Your task to perform on an android device: add a contact in the contacts app Image 0: 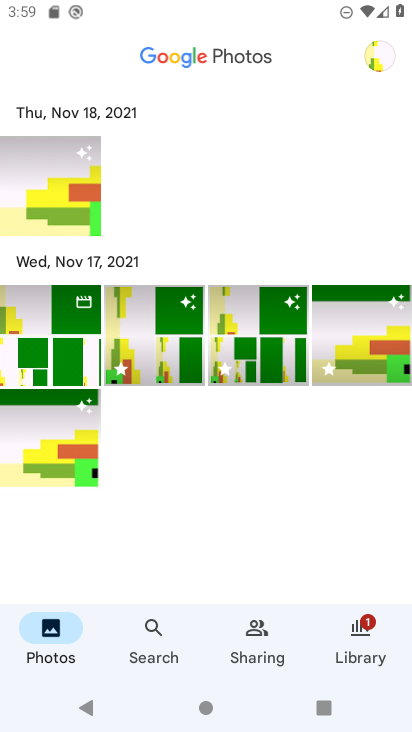
Step 0: press home button
Your task to perform on an android device: add a contact in the contacts app Image 1: 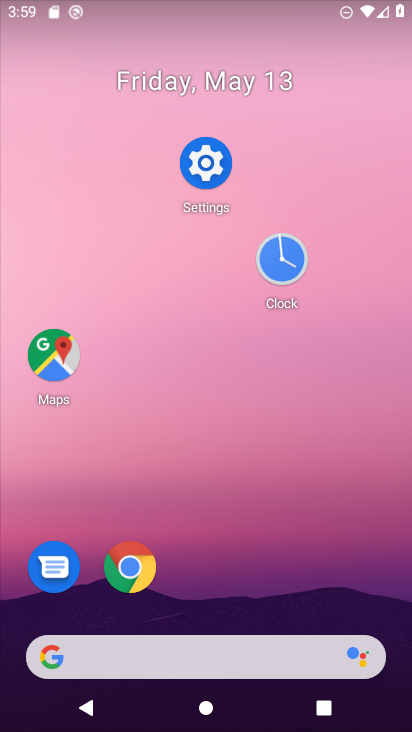
Step 1: drag from (264, 546) to (409, 279)
Your task to perform on an android device: add a contact in the contacts app Image 2: 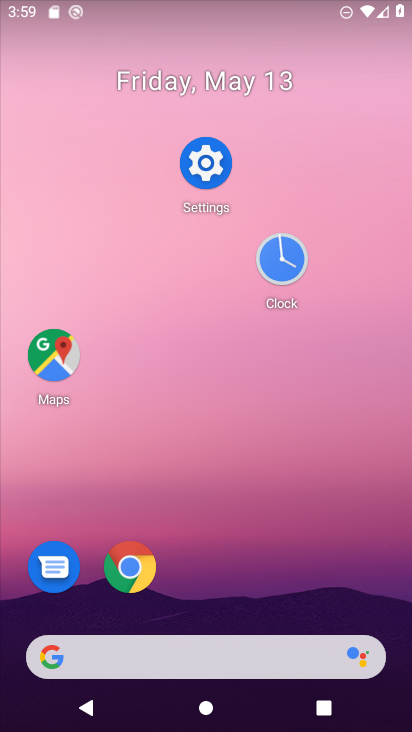
Step 2: drag from (291, 617) to (334, 48)
Your task to perform on an android device: add a contact in the contacts app Image 3: 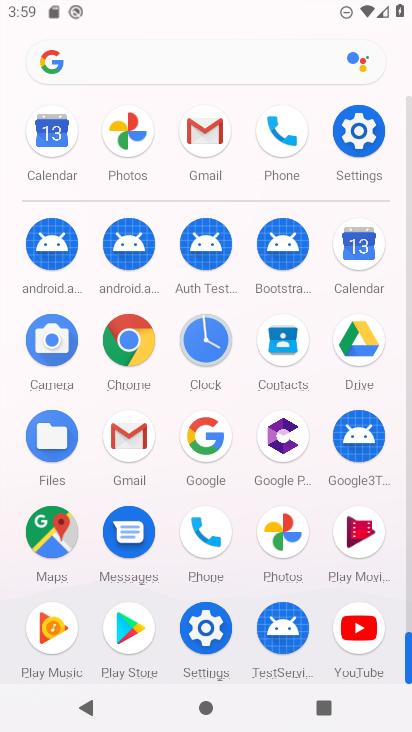
Step 3: click (279, 370)
Your task to perform on an android device: add a contact in the contacts app Image 4: 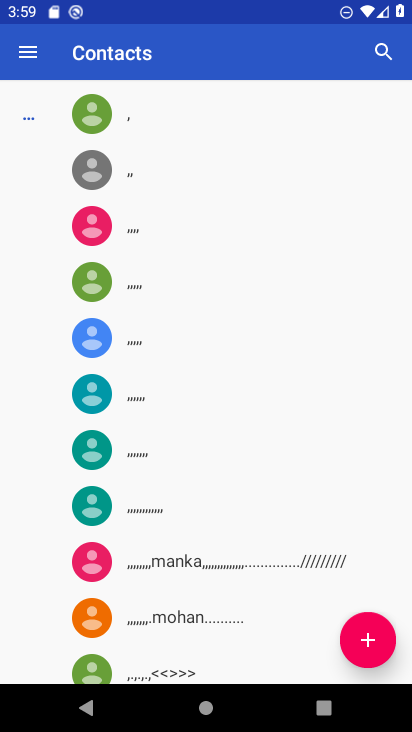
Step 4: click (350, 651)
Your task to perform on an android device: add a contact in the contacts app Image 5: 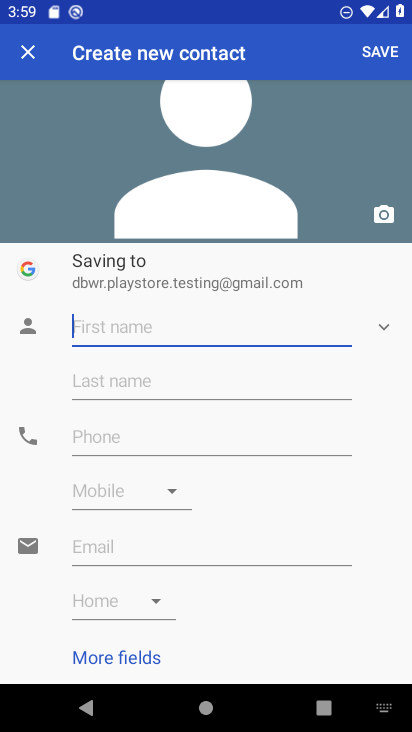
Step 5: type "asa"
Your task to perform on an android device: add a contact in the contacts app Image 6: 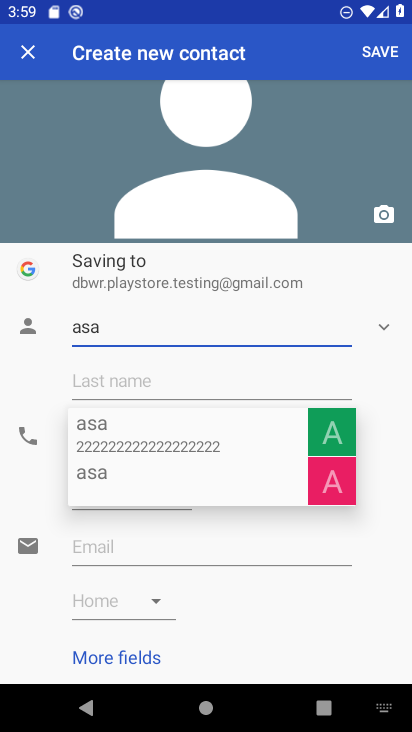
Step 6: click (304, 381)
Your task to perform on an android device: add a contact in the contacts app Image 7: 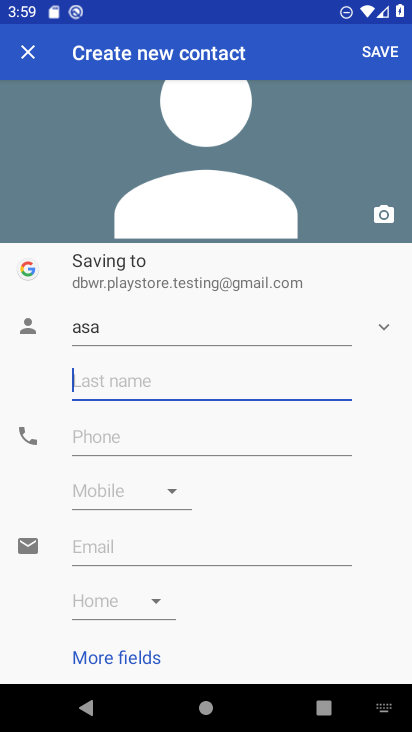
Step 7: type "asxas"
Your task to perform on an android device: add a contact in the contacts app Image 8: 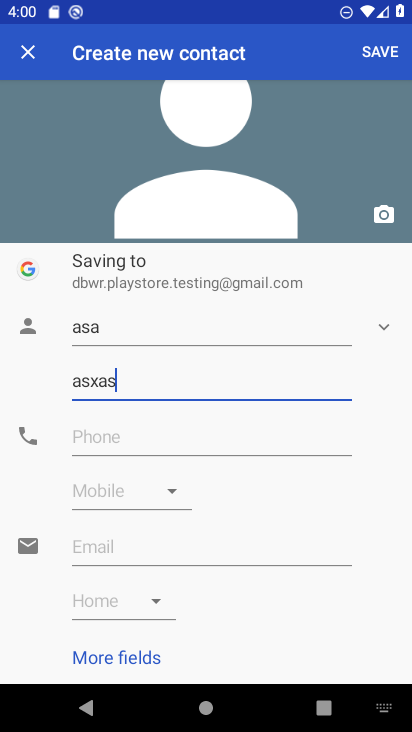
Step 8: click (250, 427)
Your task to perform on an android device: add a contact in the contacts app Image 9: 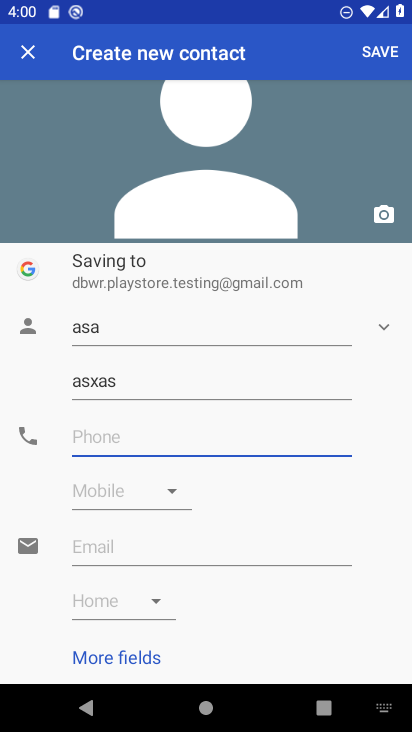
Step 9: type "2e321321"
Your task to perform on an android device: add a contact in the contacts app Image 10: 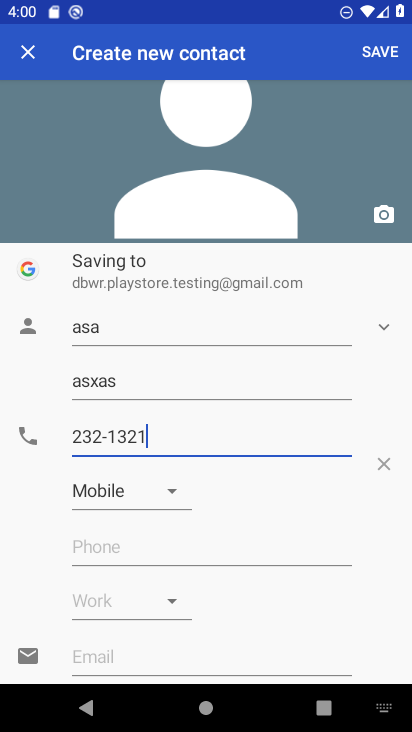
Step 10: click (385, 53)
Your task to perform on an android device: add a contact in the contacts app Image 11: 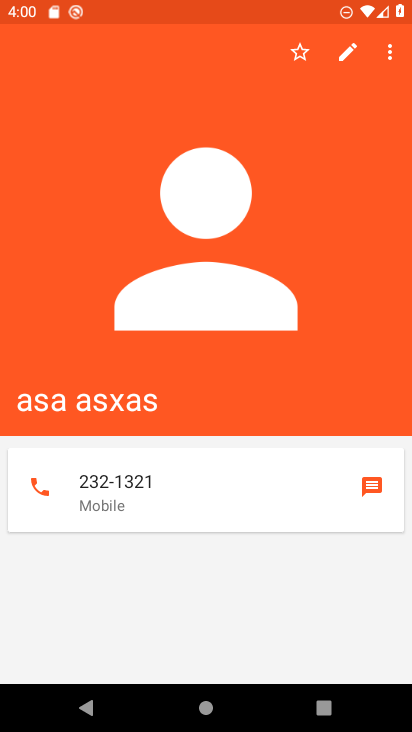
Step 11: task complete